Your task to perform on an android device: toggle javascript in the chrome app Image 0: 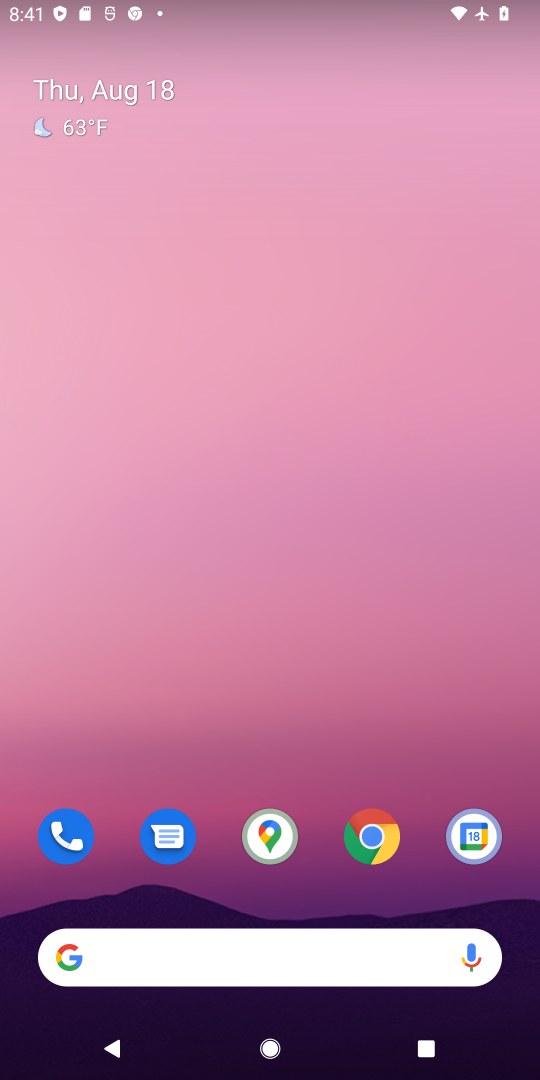
Step 0: drag from (346, 553) to (363, 221)
Your task to perform on an android device: toggle javascript in the chrome app Image 1: 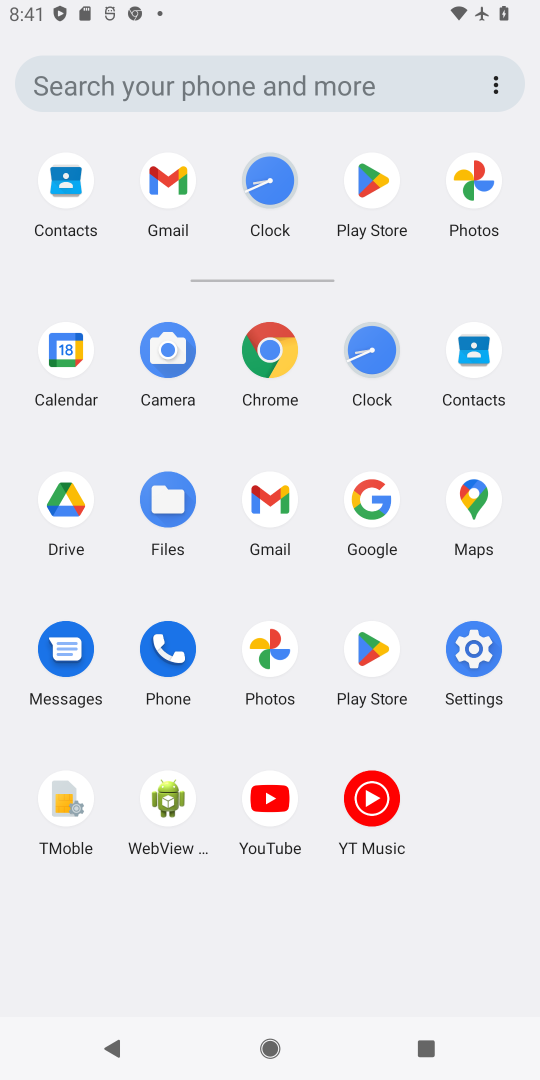
Step 1: click (267, 344)
Your task to perform on an android device: toggle javascript in the chrome app Image 2: 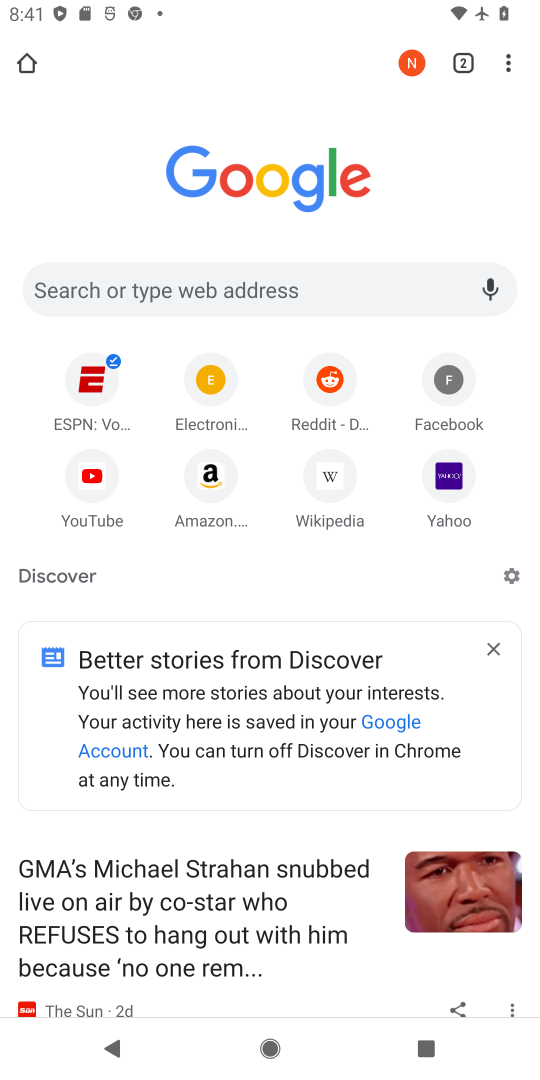
Step 2: click (511, 69)
Your task to perform on an android device: toggle javascript in the chrome app Image 3: 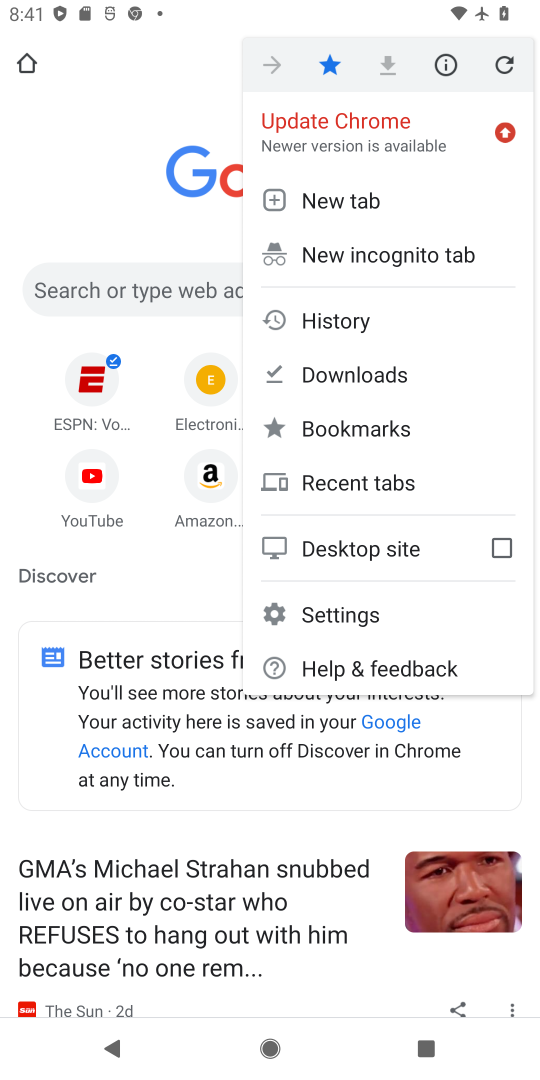
Step 3: click (333, 602)
Your task to perform on an android device: toggle javascript in the chrome app Image 4: 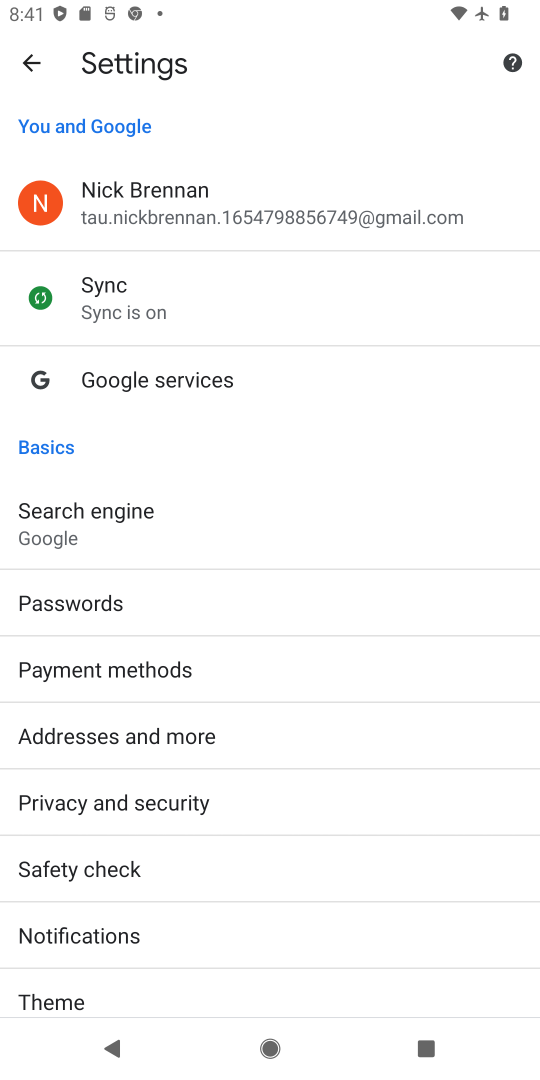
Step 4: drag from (106, 926) to (230, 343)
Your task to perform on an android device: toggle javascript in the chrome app Image 5: 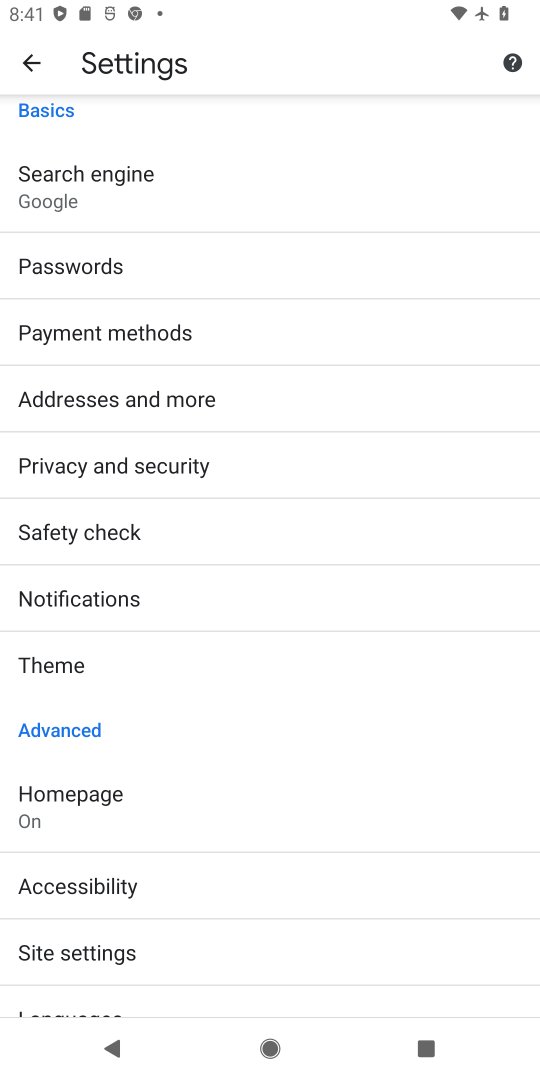
Step 5: click (69, 957)
Your task to perform on an android device: toggle javascript in the chrome app Image 6: 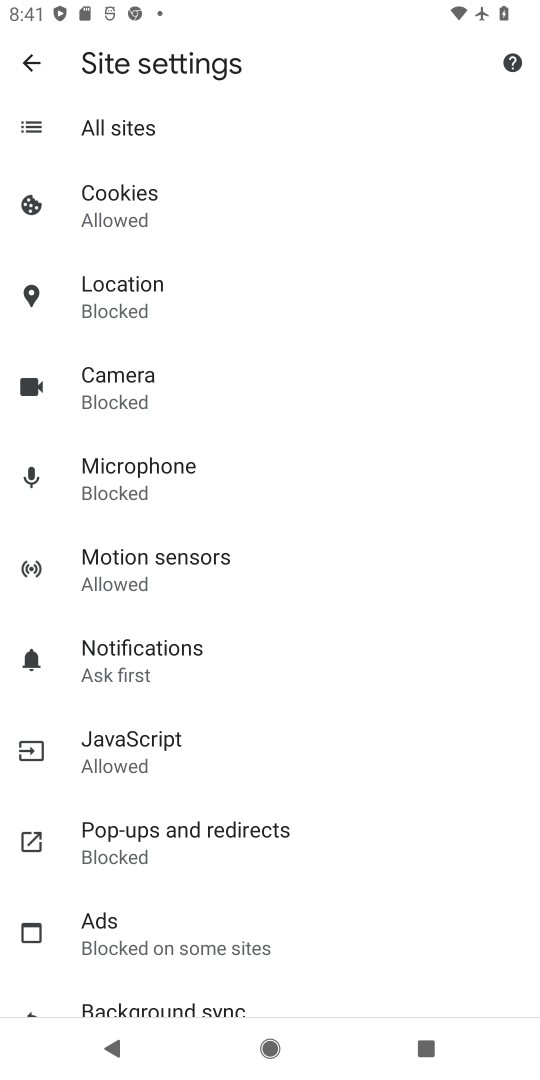
Step 6: click (128, 729)
Your task to perform on an android device: toggle javascript in the chrome app Image 7: 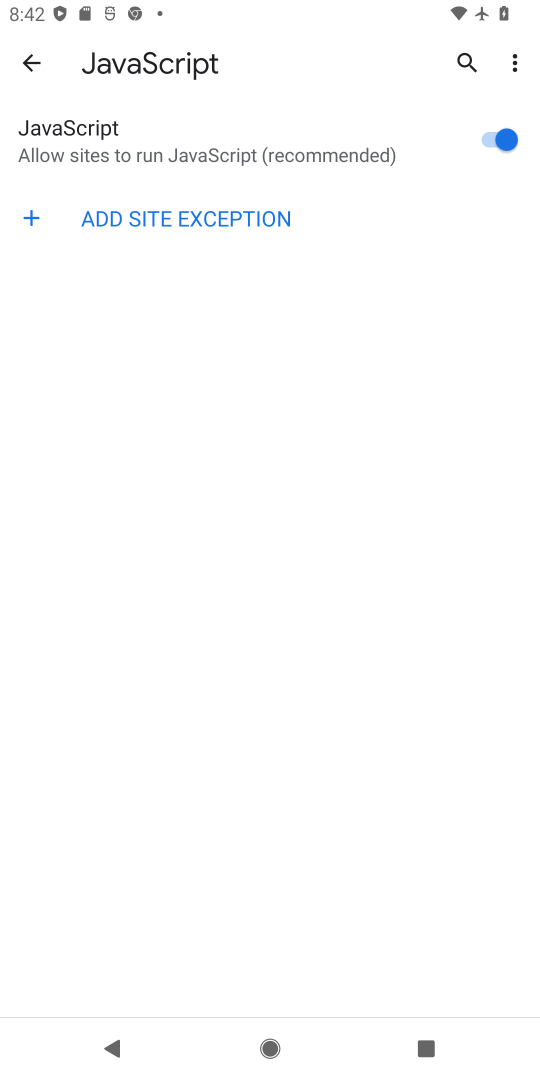
Step 7: click (502, 141)
Your task to perform on an android device: toggle javascript in the chrome app Image 8: 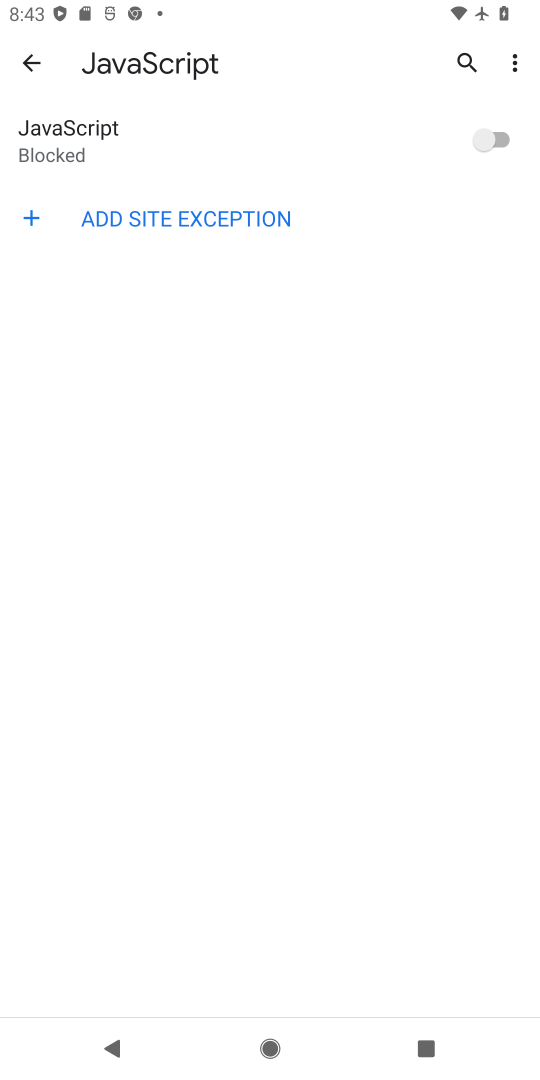
Step 8: task complete